Your task to perform on an android device: What is the news today? Image 0: 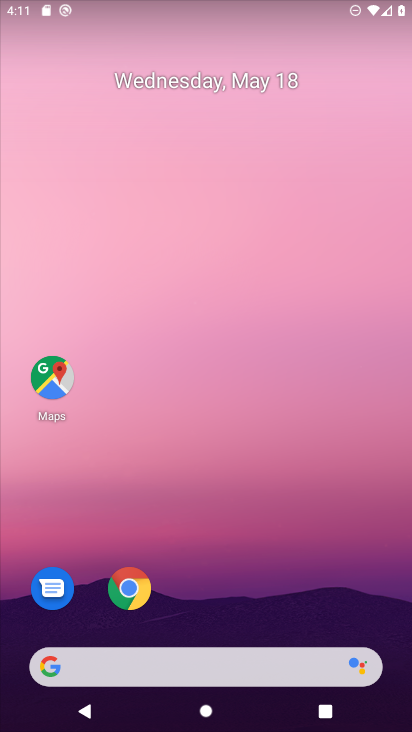
Step 0: drag from (246, 581) to (275, 236)
Your task to perform on an android device: What is the news today? Image 1: 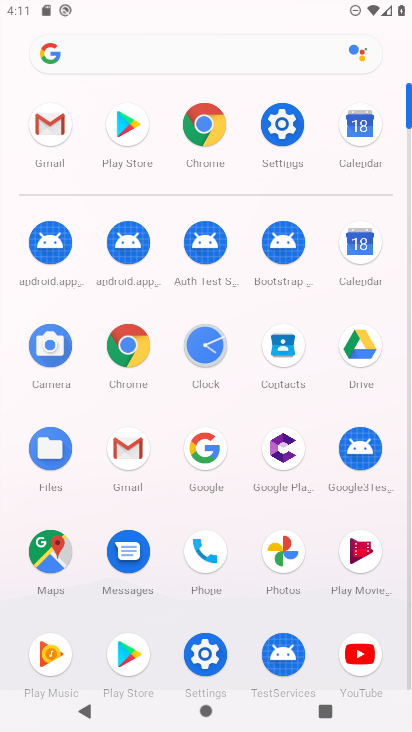
Step 1: click (203, 46)
Your task to perform on an android device: What is the news today? Image 2: 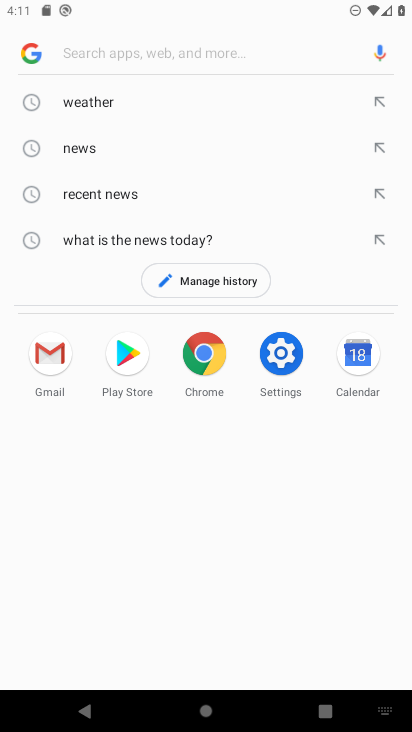
Step 2: click (142, 127)
Your task to perform on an android device: What is the news today? Image 3: 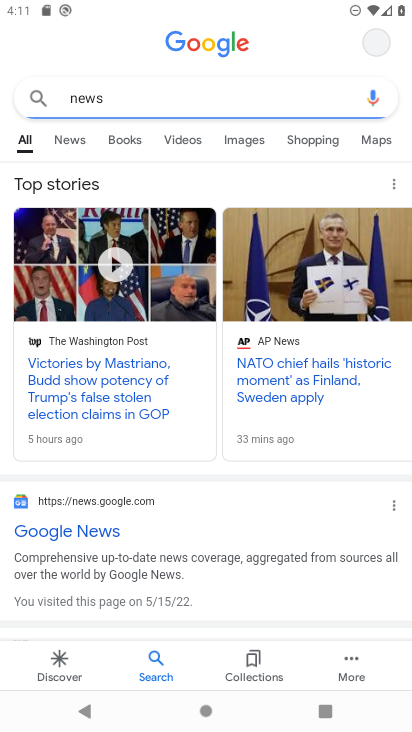
Step 3: task complete